Your task to perform on an android device: Go to Reddit.com Image 0: 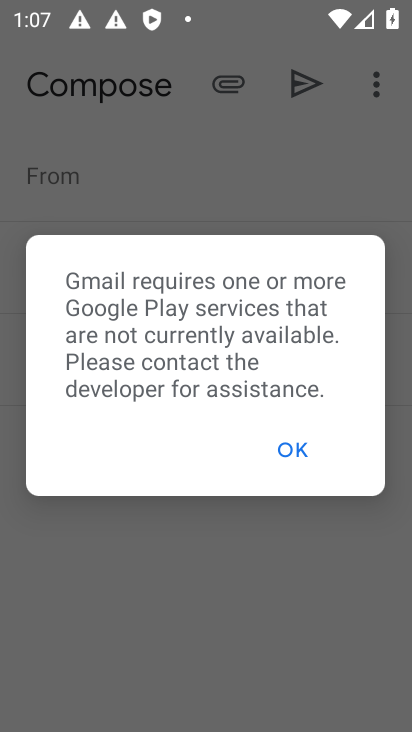
Step 0: press home button
Your task to perform on an android device: Go to Reddit.com Image 1: 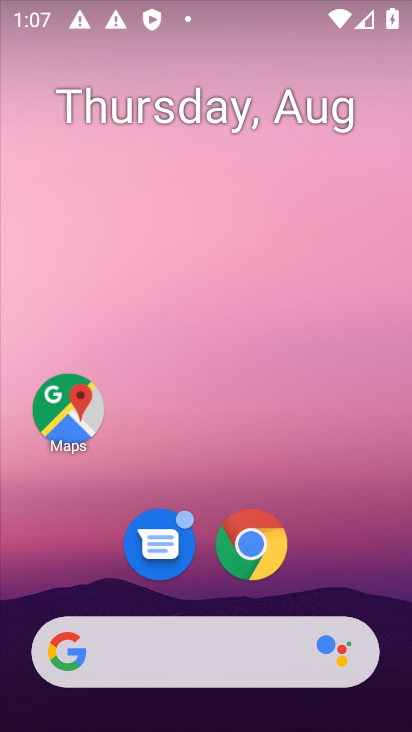
Step 1: drag from (208, 597) to (274, 15)
Your task to perform on an android device: Go to Reddit.com Image 2: 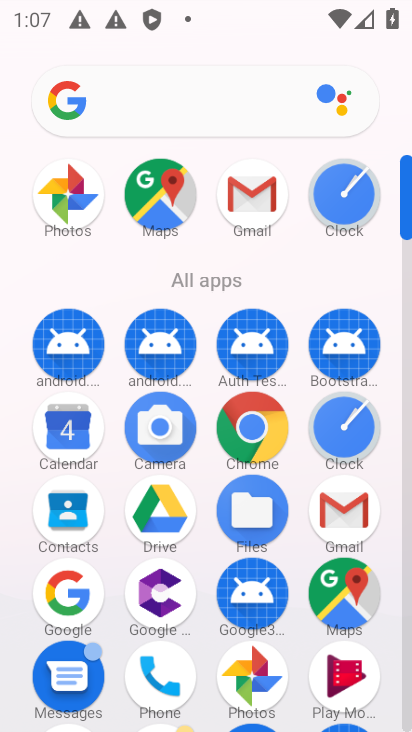
Step 2: click (263, 407)
Your task to perform on an android device: Go to Reddit.com Image 3: 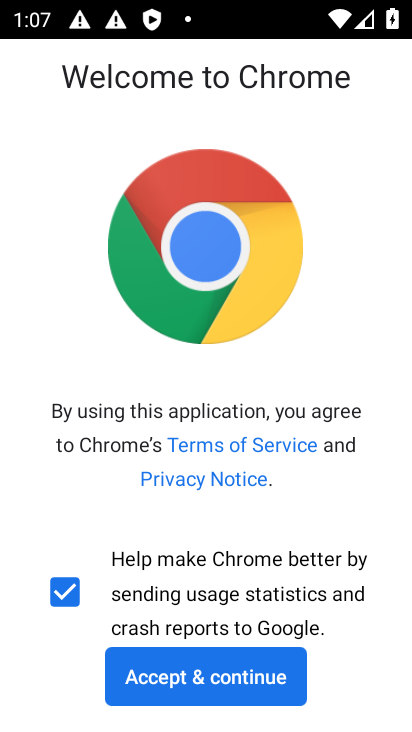
Step 3: click (163, 663)
Your task to perform on an android device: Go to Reddit.com Image 4: 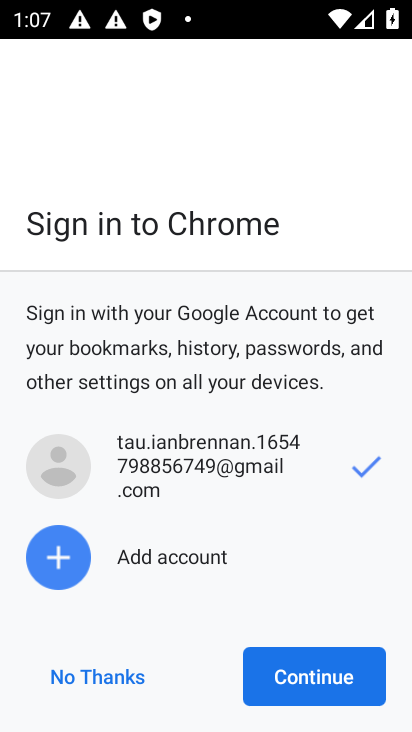
Step 4: click (261, 675)
Your task to perform on an android device: Go to Reddit.com Image 5: 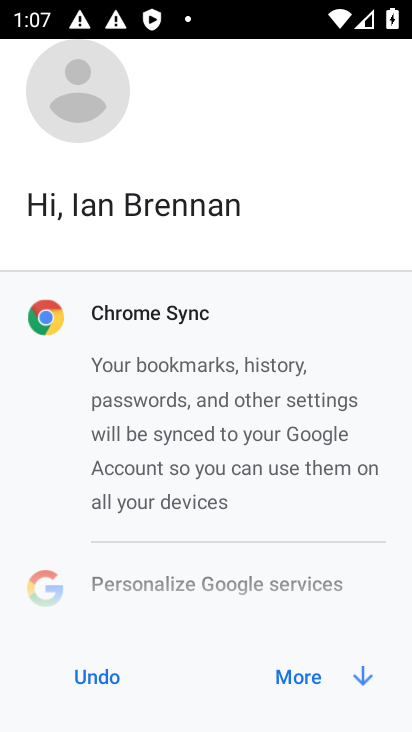
Step 5: click (261, 675)
Your task to perform on an android device: Go to Reddit.com Image 6: 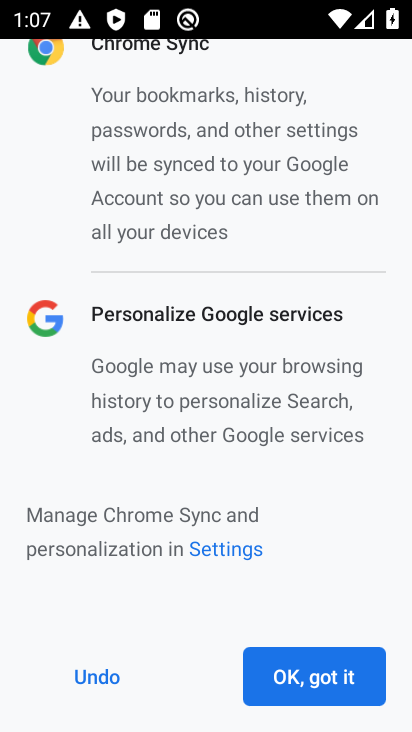
Step 6: click (261, 675)
Your task to perform on an android device: Go to Reddit.com Image 7: 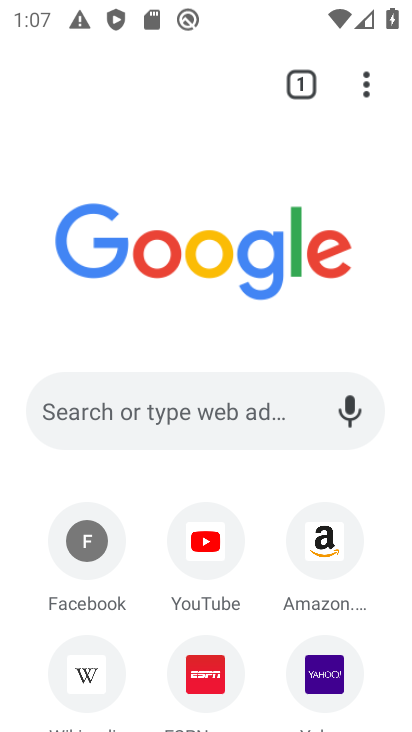
Step 7: type "Reddit.com"
Your task to perform on an android device: Go to Reddit.com Image 8: 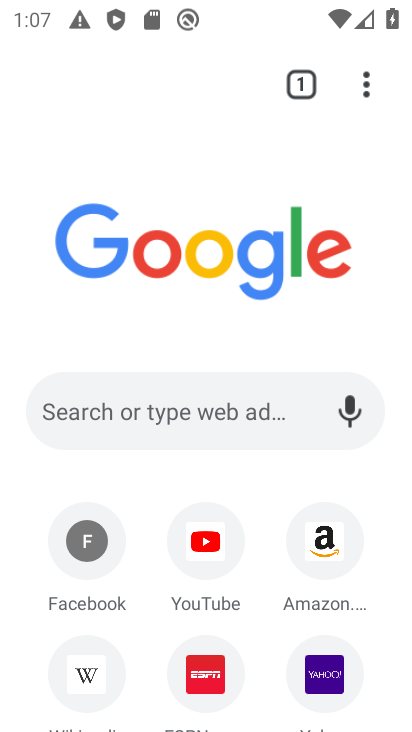
Step 8: click (201, 419)
Your task to perform on an android device: Go to Reddit.com Image 9: 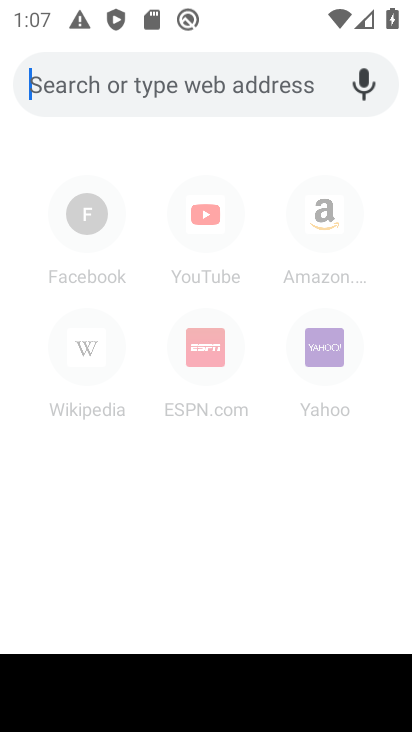
Step 9: type " Reddit.com"
Your task to perform on an android device: Go to Reddit.com Image 10: 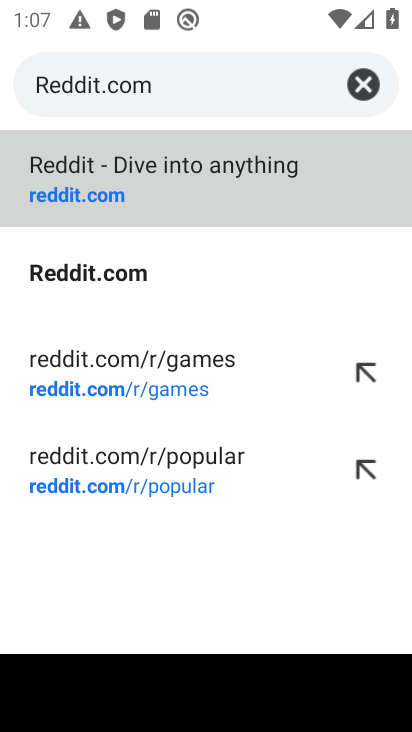
Step 10: click (101, 216)
Your task to perform on an android device: Go to Reddit.com Image 11: 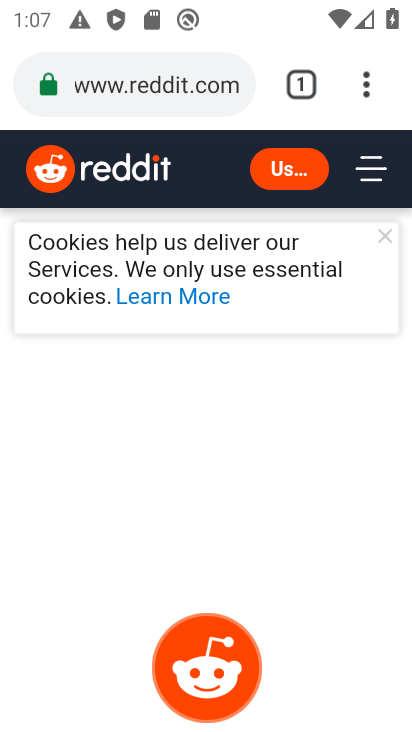
Step 11: task complete